Your task to perform on an android device: turn on data saver in the chrome app Image 0: 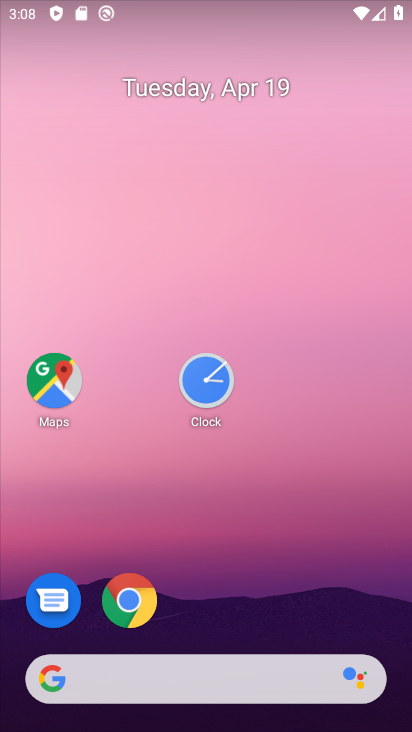
Step 0: click (203, 174)
Your task to perform on an android device: turn on data saver in the chrome app Image 1: 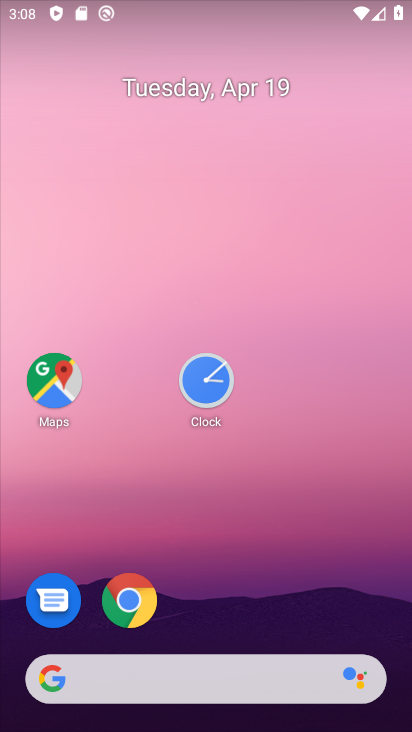
Step 1: drag from (190, 411) to (140, 243)
Your task to perform on an android device: turn on data saver in the chrome app Image 2: 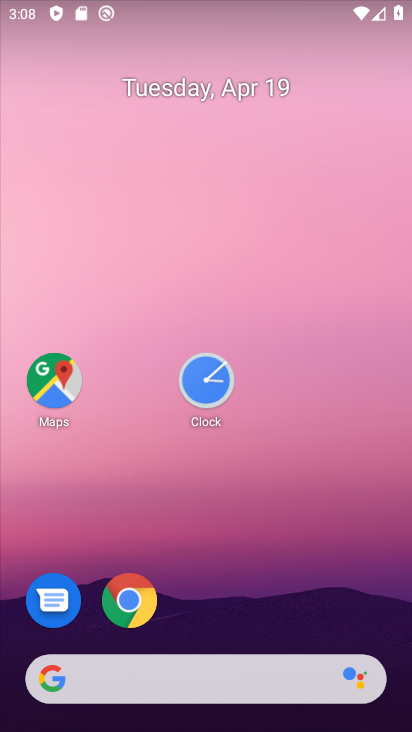
Step 2: click (164, 219)
Your task to perform on an android device: turn on data saver in the chrome app Image 3: 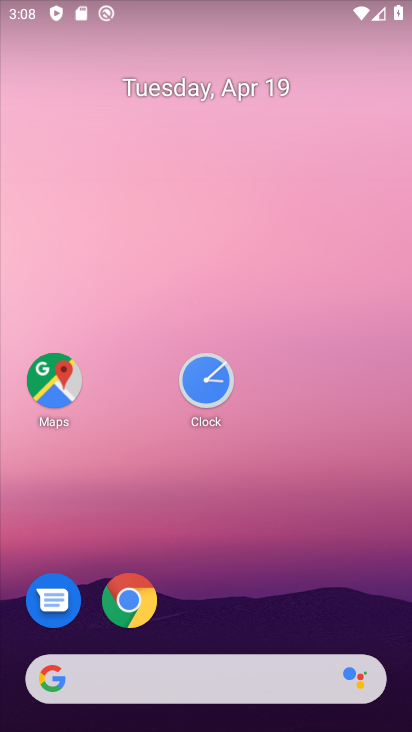
Step 3: drag from (208, 447) to (159, 98)
Your task to perform on an android device: turn on data saver in the chrome app Image 4: 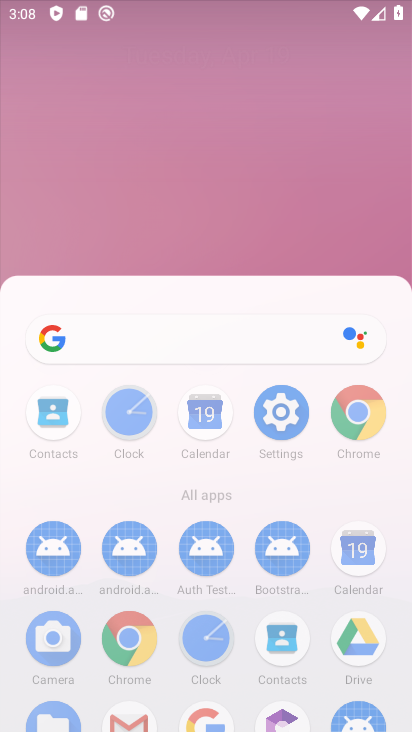
Step 4: drag from (168, 300) to (149, 78)
Your task to perform on an android device: turn on data saver in the chrome app Image 5: 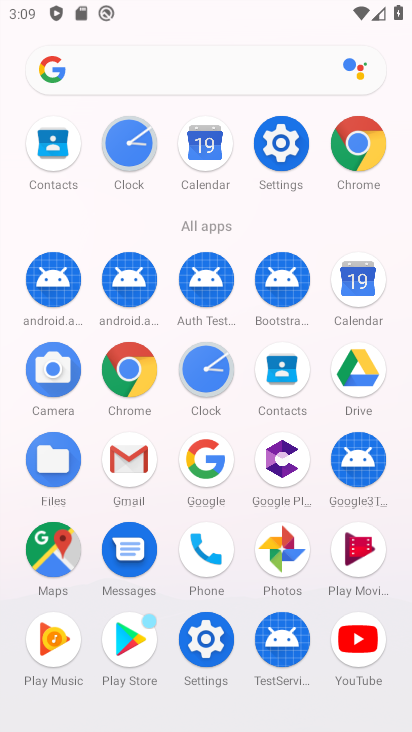
Step 5: click (366, 143)
Your task to perform on an android device: turn on data saver in the chrome app Image 6: 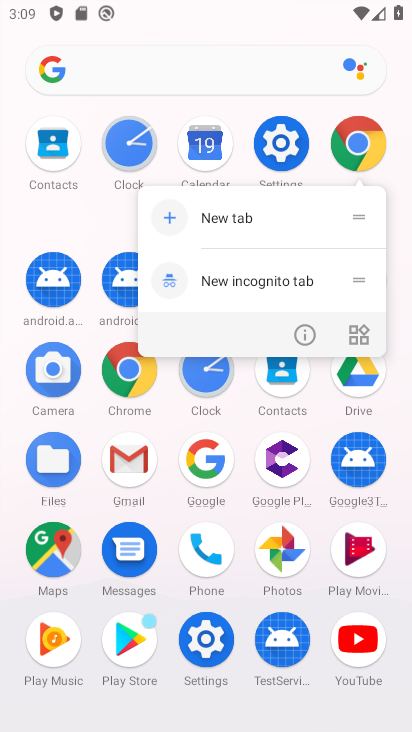
Step 6: click (364, 160)
Your task to perform on an android device: turn on data saver in the chrome app Image 7: 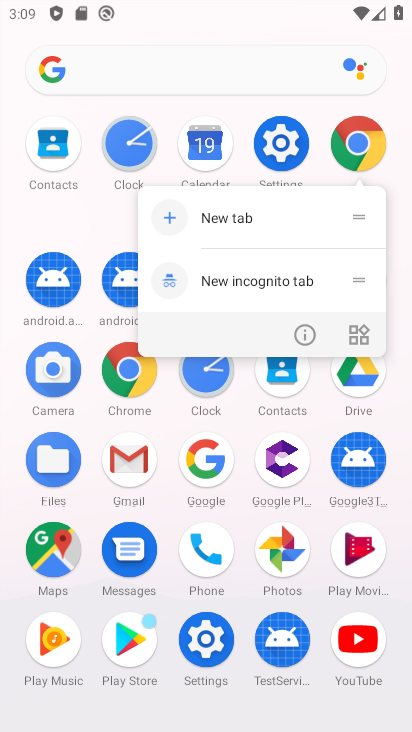
Step 7: click (364, 160)
Your task to perform on an android device: turn on data saver in the chrome app Image 8: 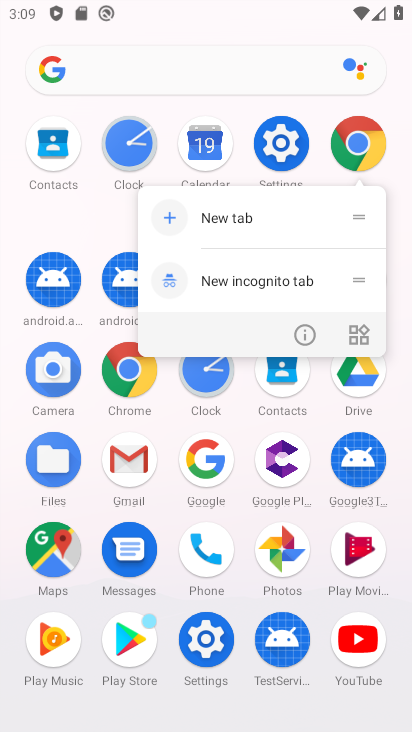
Step 8: click (347, 134)
Your task to perform on an android device: turn on data saver in the chrome app Image 9: 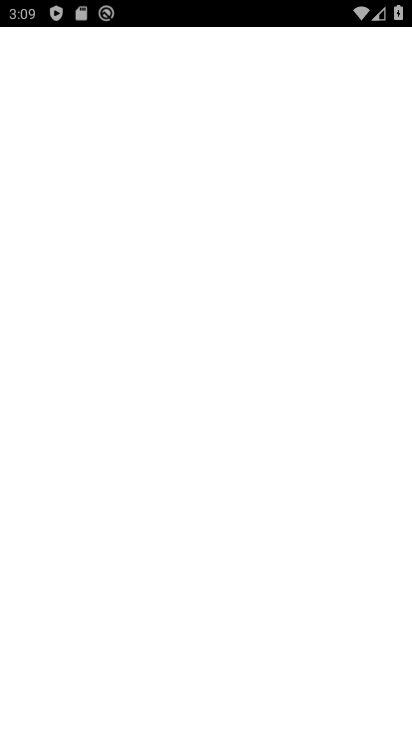
Step 9: click (347, 134)
Your task to perform on an android device: turn on data saver in the chrome app Image 10: 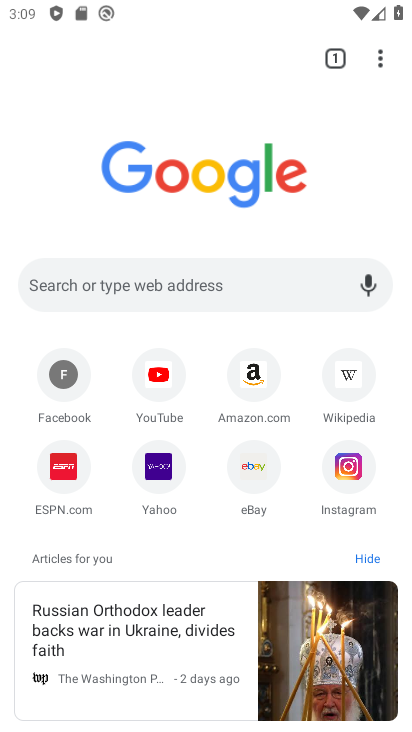
Step 10: click (374, 55)
Your task to perform on an android device: turn on data saver in the chrome app Image 11: 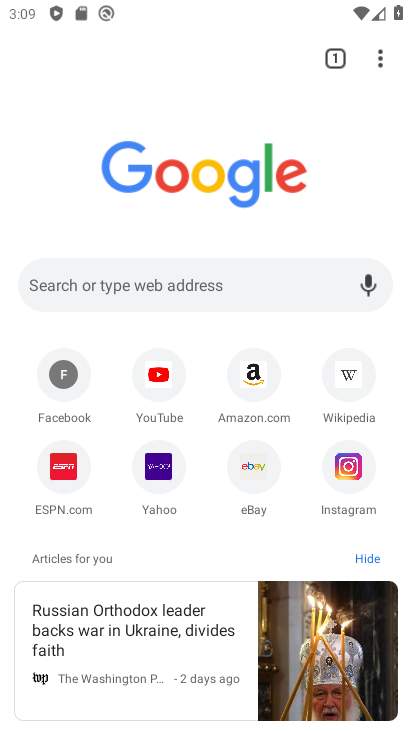
Step 11: click (379, 64)
Your task to perform on an android device: turn on data saver in the chrome app Image 12: 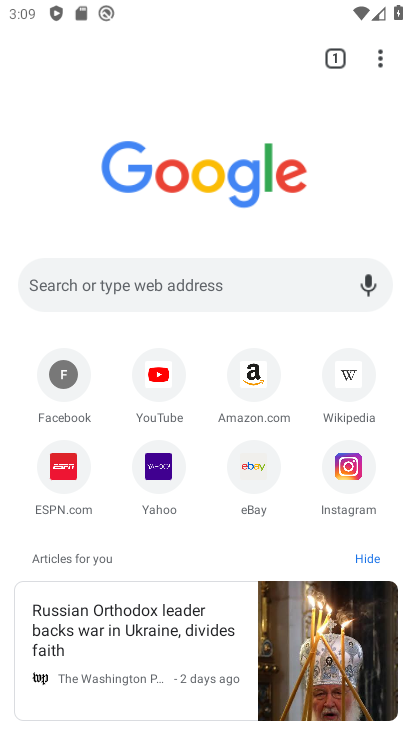
Step 12: click (380, 57)
Your task to perform on an android device: turn on data saver in the chrome app Image 13: 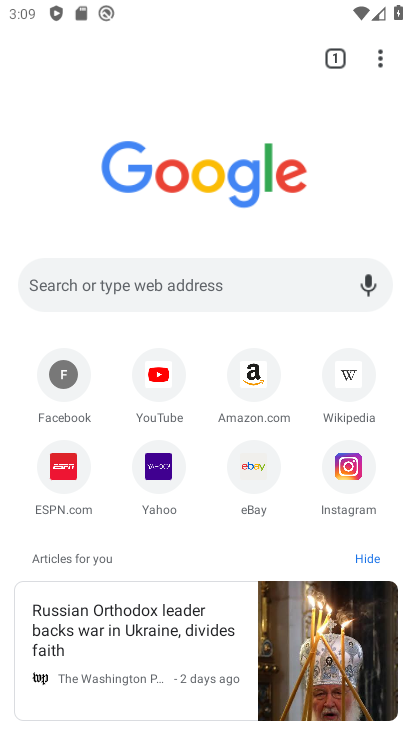
Step 13: click (376, 50)
Your task to perform on an android device: turn on data saver in the chrome app Image 14: 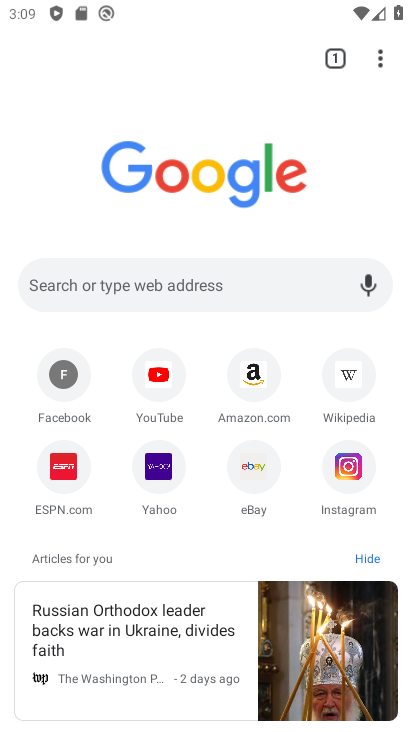
Step 14: click (375, 56)
Your task to perform on an android device: turn on data saver in the chrome app Image 15: 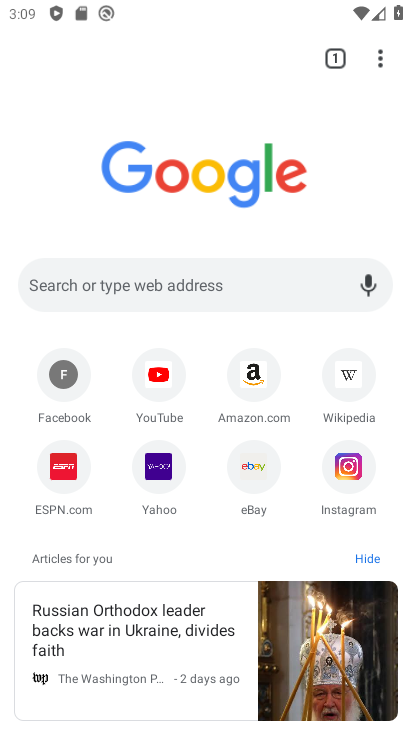
Step 15: click (375, 56)
Your task to perform on an android device: turn on data saver in the chrome app Image 16: 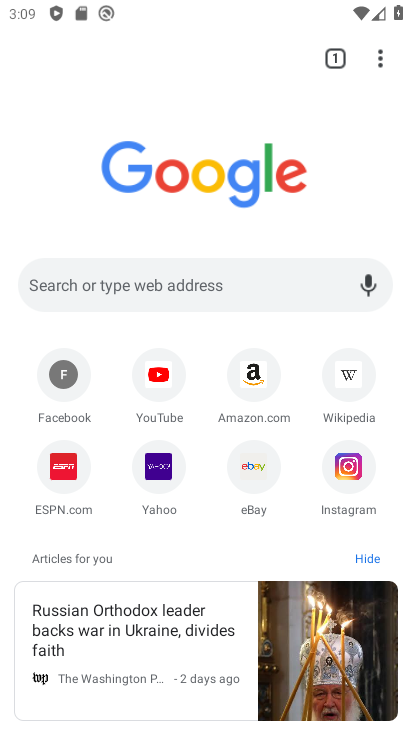
Step 16: click (375, 56)
Your task to perform on an android device: turn on data saver in the chrome app Image 17: 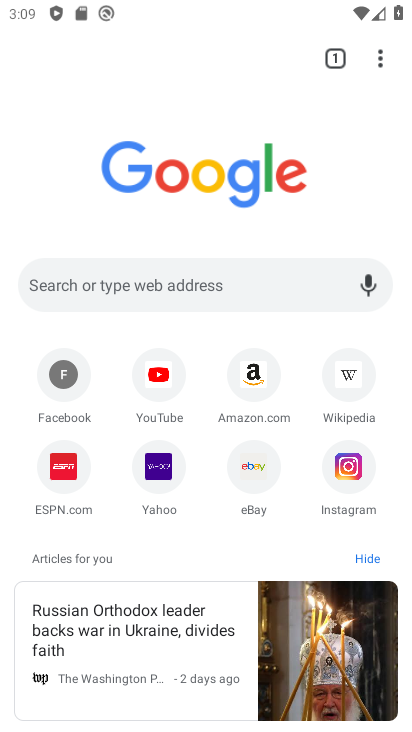
Step 17: click (377, 51)
Your task to perform on an android device: turn on data saver in the chrome app Image 18: 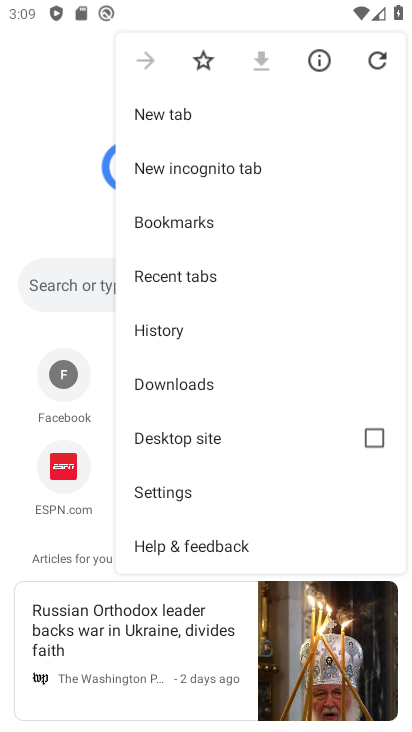
Step 18: click (157, 493)
Your task to perform on an android device: turn on data saver in the chrome app Image 19: 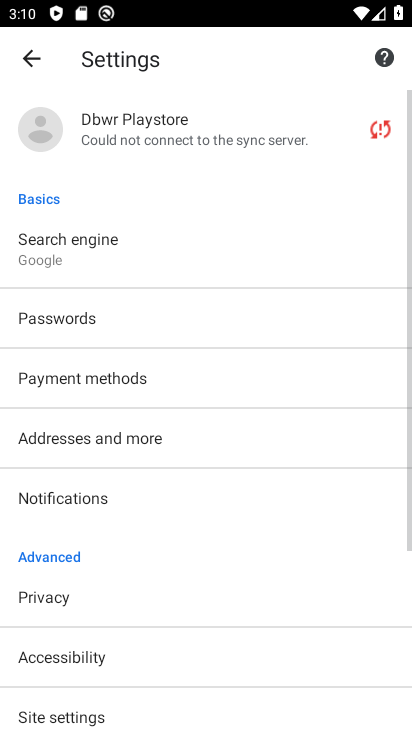
Step 19: drag from (174, 532) to (101, 135)
Your task to perform on an android device: turn on data saver in the chrome app Image 20: 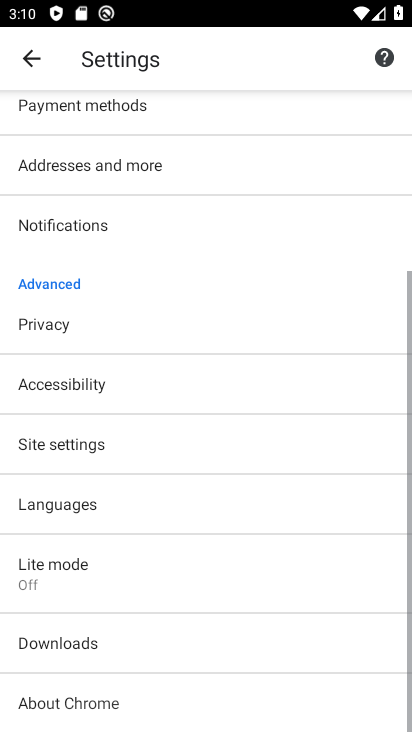
Step 20: drag from (216, 529) to (122, 214)
Your task to perform on an android device: turn on data saver in the chrome app Image 21: 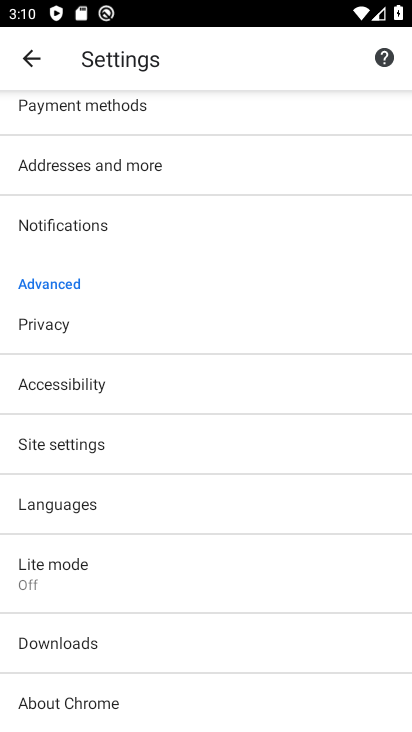
Step 21: click (50, 568)
Your task to perform on an android device: turn on data saver in the chrome app Image 22: 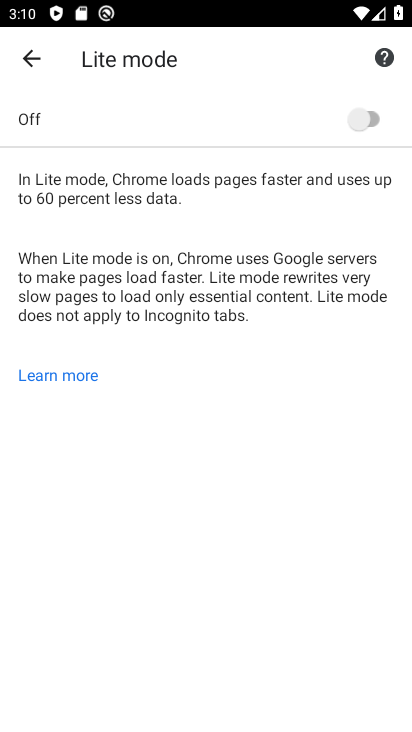
Step 22: click (57, 563)
Your task to perform on an android device: turn on data saver in the chrome app Image 23: 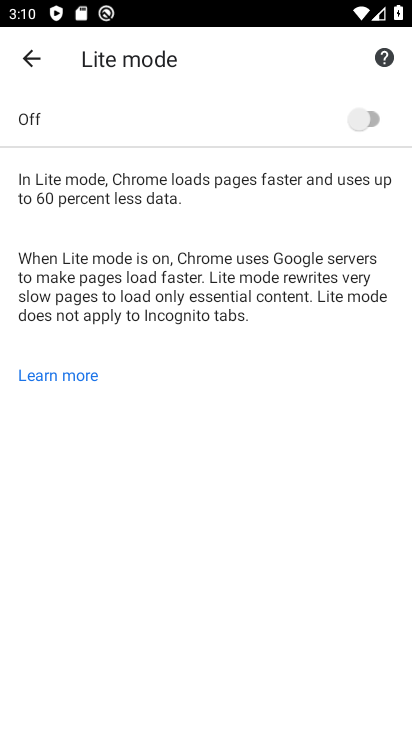
Step 23: click (360, 110)
Your task to perform on an android device: turn on data saver in the chrome app Image 24: 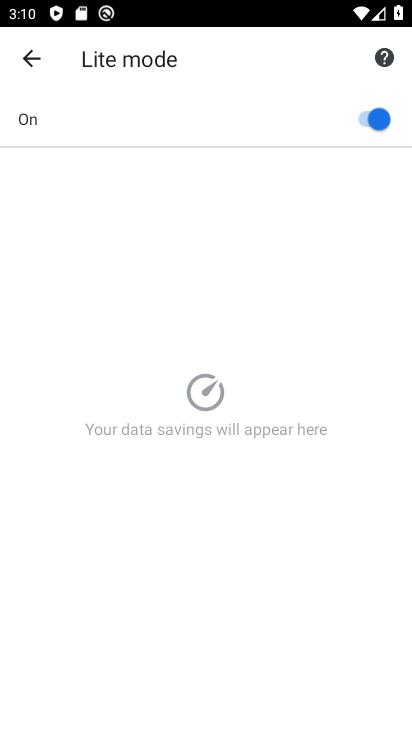
Step 24: click (362, 116)
Your task to perform on an android device: turn on data saver in the chrome app Image 25: 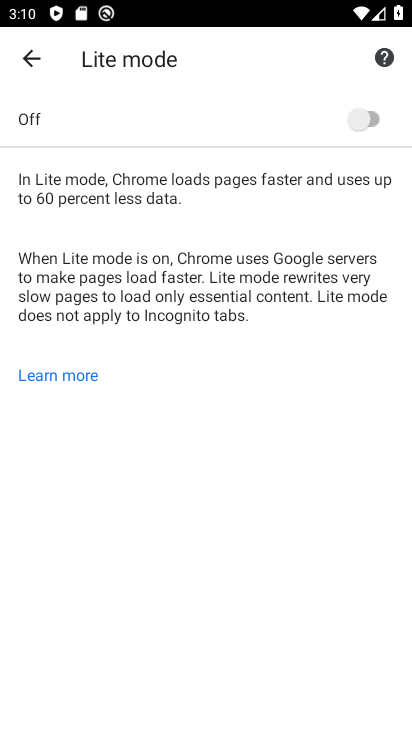
Step 25: click (355, 122)
Your task to perform on an android device: turn on data saver in the chrome app Image 26: 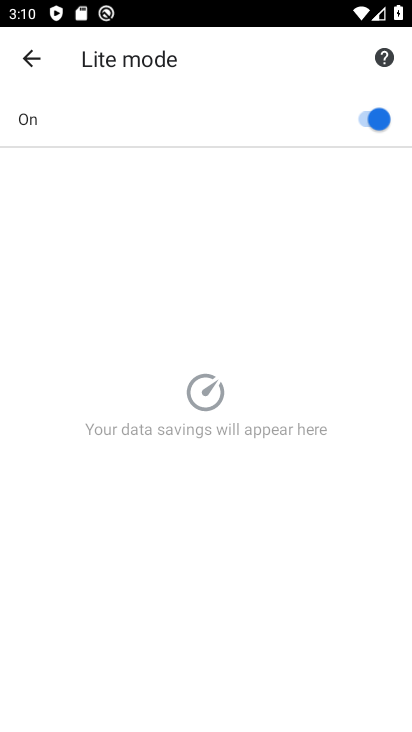
Step 26: task complete